Your task to perform on an android device: turn vacation reply on in the gmail app Image 0: 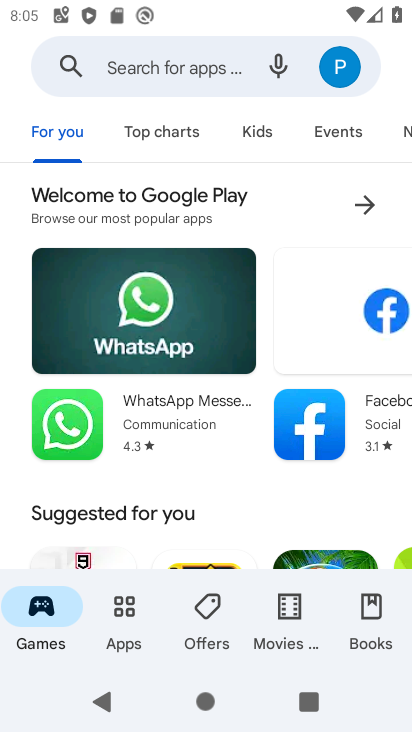
Step 0: press home button
Your task to perform on an android device: turn vacation reply on in the gmail app Image 1: 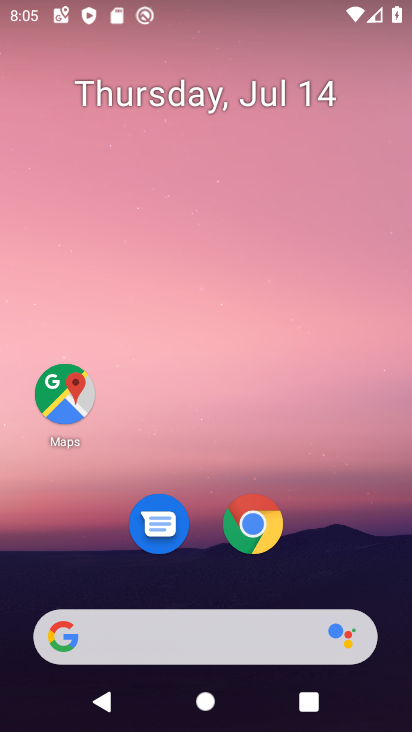
Step 1: drag from (305, 511) to (287, 37)
Your task to perform on an android device: turn vacation reply on in the gmail app Image 2: 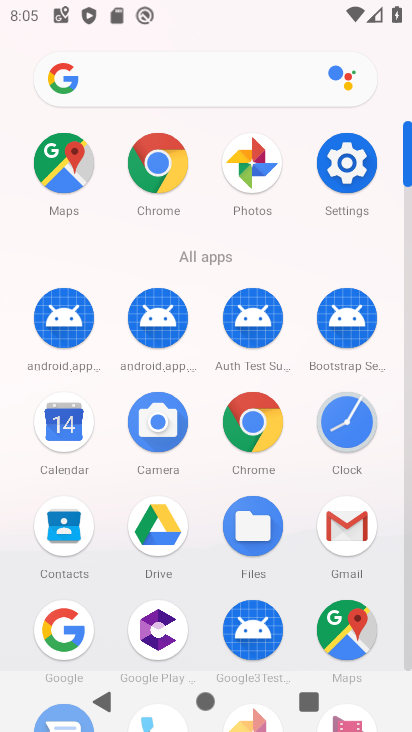
Step 2: click (343, 526)
Your task to perform on an android device: turn vacation reply on in the gmail app Image 3: 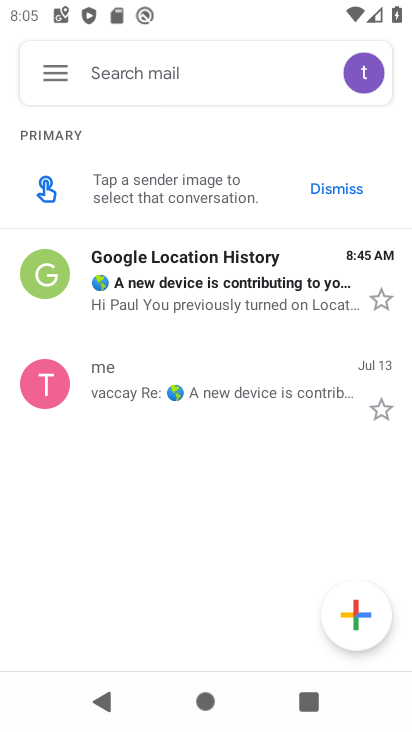
Step 3: click (62, 74)
Your task to perform on an android device: turn vacation reply on in the gmail app Image 4: 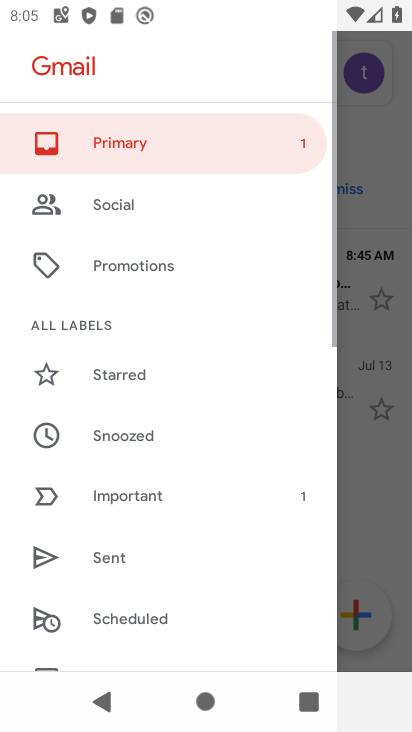
Step 4: drag from (169, 447) to (193, 180)
Your task to perform on an android device: turn vacation reply on in the gmail app Image 5: 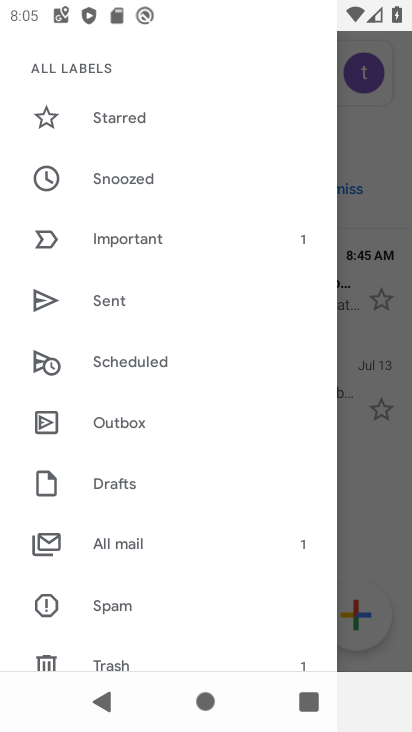
Step 5: drag from (187, 434) to (201, 137)
Your task to perform on an android device: turn vacation reply on in the gmail app Image 6: 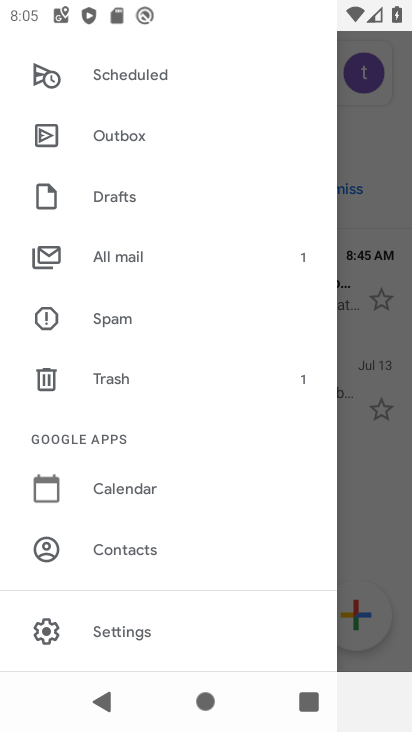
Step 6: click (123, 629)
Your task to perform on an android device: turn vacation reply on in the gmail app Image 7: 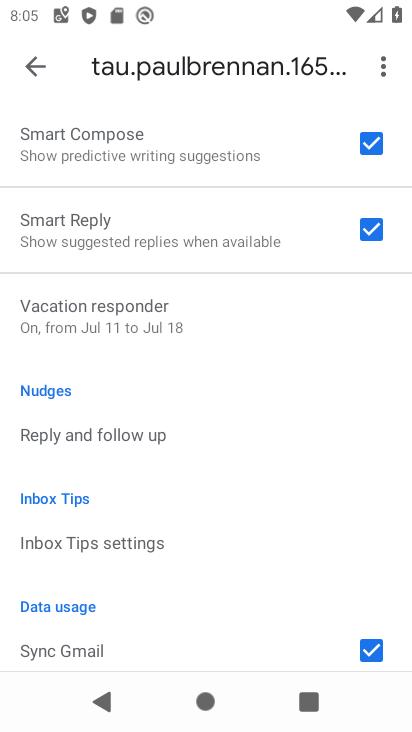
Step 7: click (160, 311)
Your task to perform on an android device: turn vacation reply on in the gmail app Image 8: 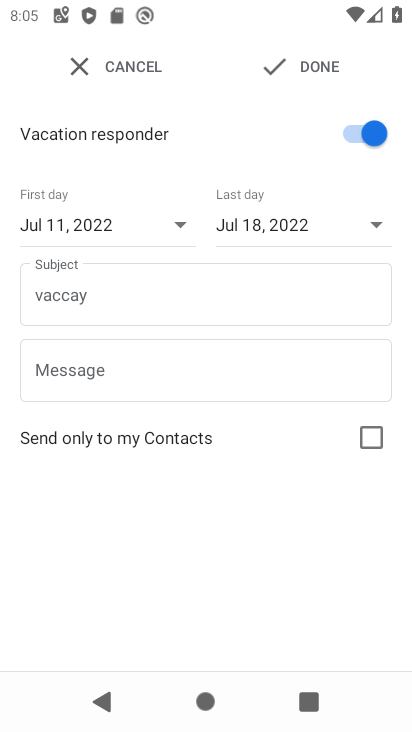
Step 8: task complete